Your task to perform on an android device: Show me productivity apps on the Play Store Image 0: 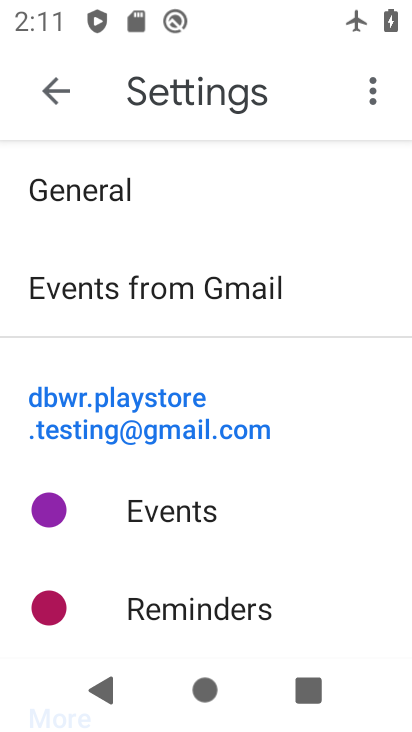
Step 0: press home button
Your task to perform on an android device: Show me productivity apps on the Play Store Image 1: 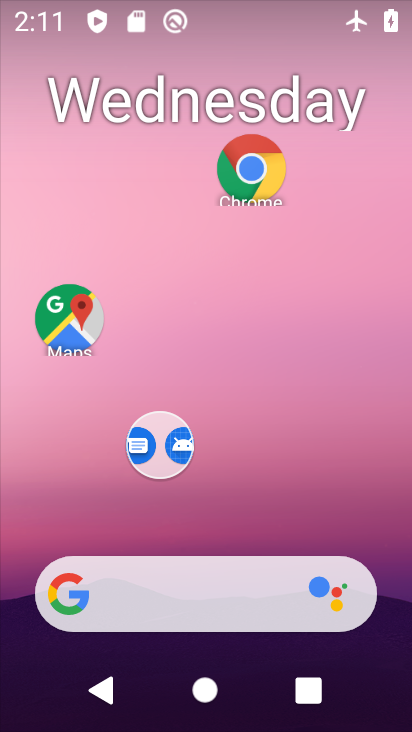
Step 1: drag from (209, 548) to (206, 8)
Your task to perform on an android device: Show me productivity apps on the Play Store Image 2: 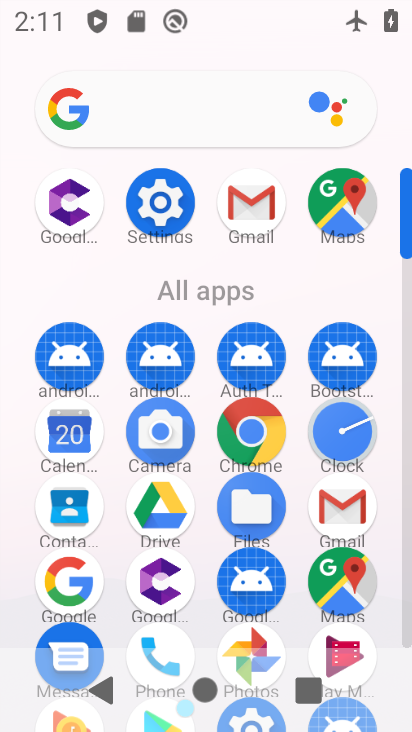
Step 2: drag from (202, 613) to (208, 175)
Your task to perform on an android device: Show me productivity apps on the Play Store Image 3: 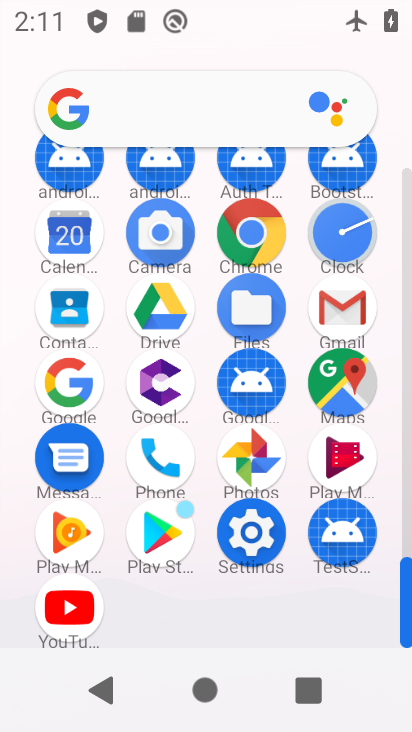
Step 3: click (150, 545)
Your task to perform on an android device: Show me productivity apps on the Play Store Image 4: 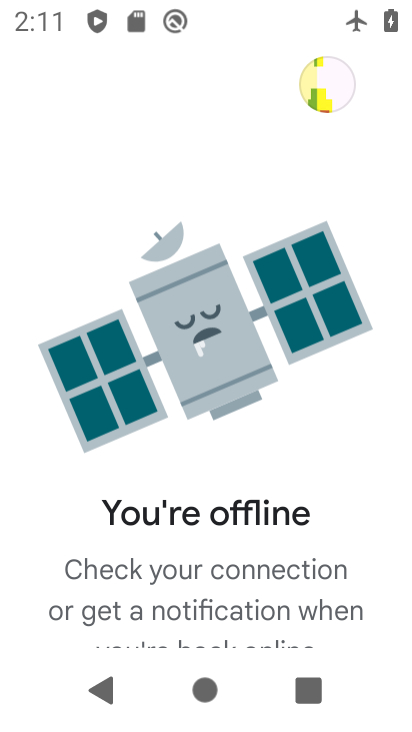
Step 4: drag from (195, 617) to (183, 114)
Your task to perform on an android device: Show me productivity apps on the Play Store Image 5: 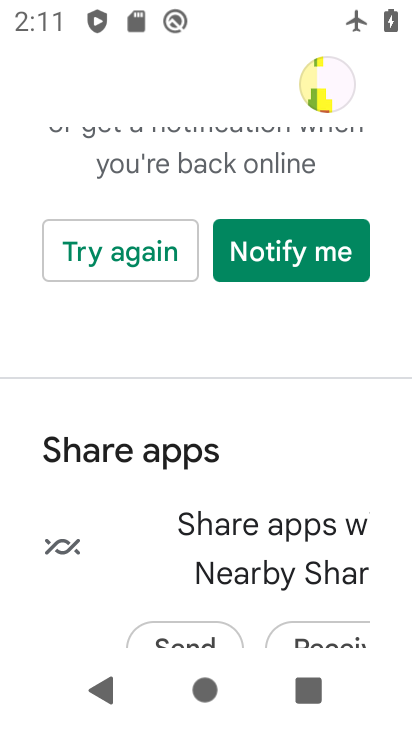
Step 5: click (280, 257)
Your task to perform on an android device: Show me productivity apps on the Play Store Image 6: 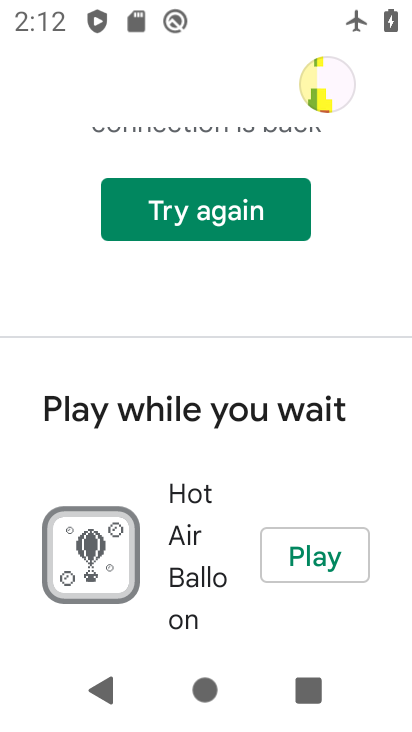
Step 6: task complete